Your task to perform on an android device: change the clock display to digital Image 0: 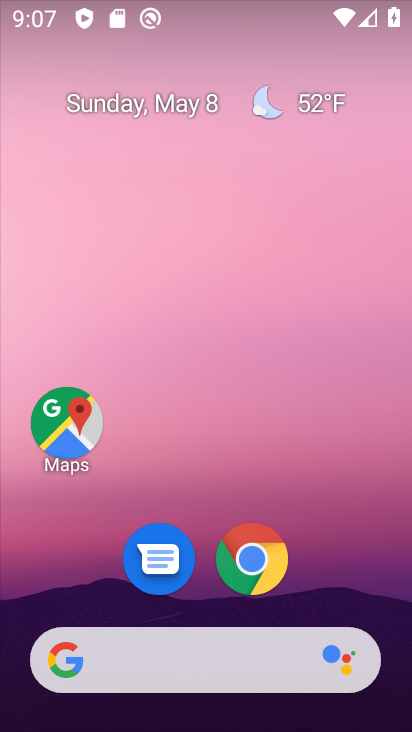
Step 0: drag from (223, 479) to (163, 14)
Your task to perform on an android device: change the clock display to digital Image 1: 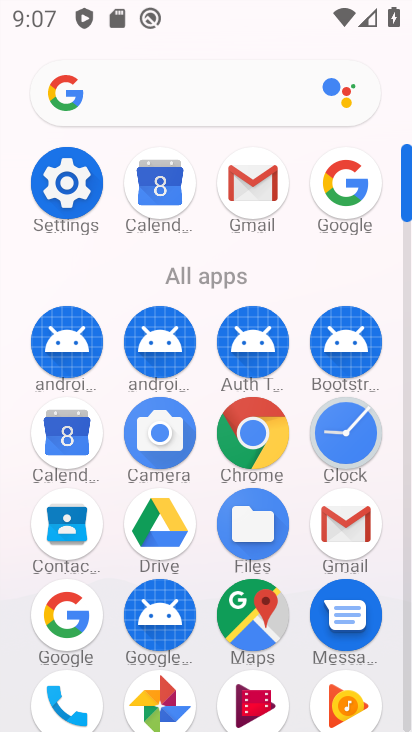
Step 1: click (331, 439)
Your task to perform on an android device: change the clock display to digital Image 2: 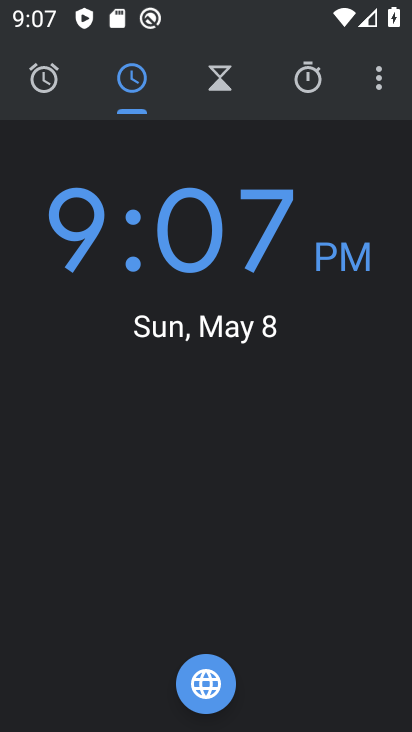
Step 2: click (389, 81)
Your task to perform on an android device: change the clock display to digital Image 3: 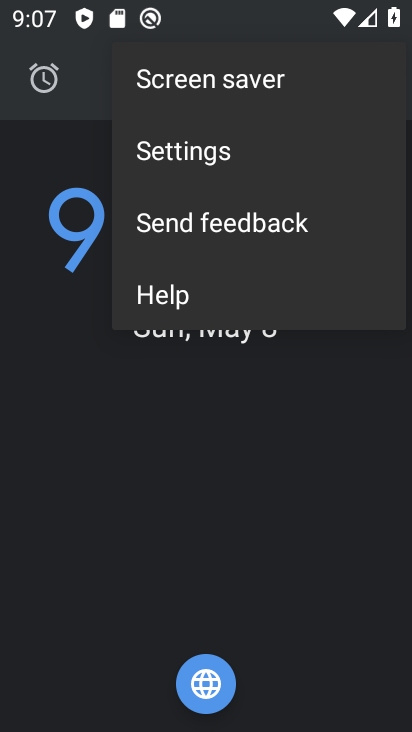
Step 3: click (236, 164)
Your task to perform on an android device: change the clock display to digital Image 4: 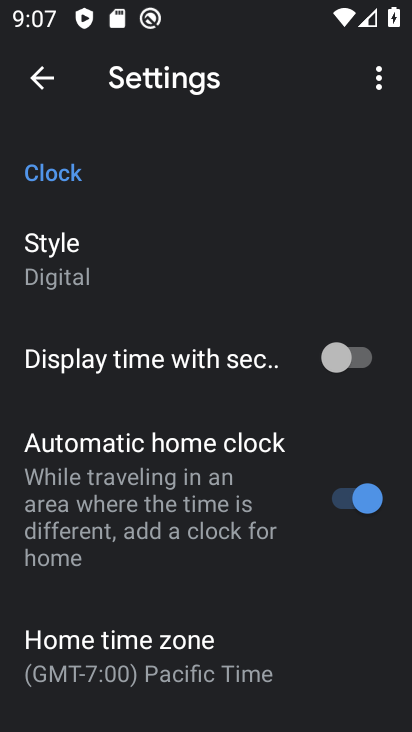
Step 4: task complete